Your task to perform on an android device: turn off sleep mode Image 0: 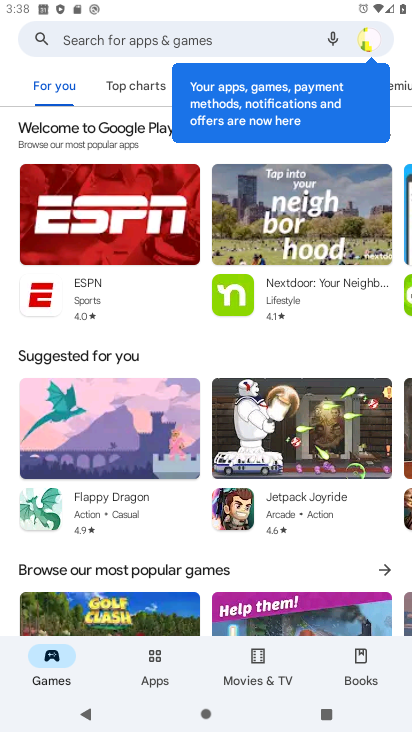
Step 0: press home button
Your task to perform on an android device: turn off sleep mode Image 1: 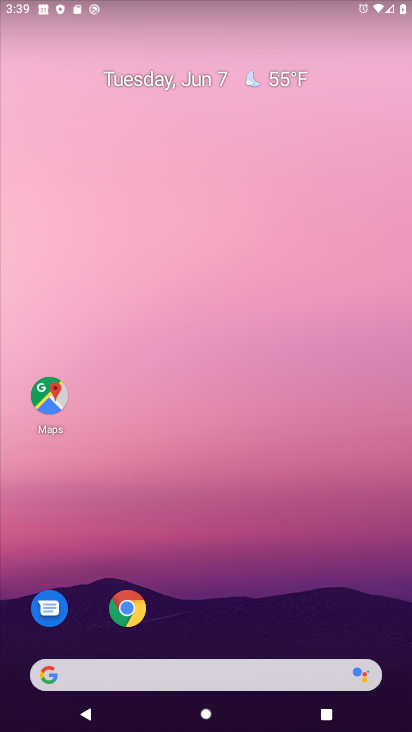
Step 1: drag from (197, 656) to (338, 318)
Your task to perform on an android device: turn off sleep mode Image 2: 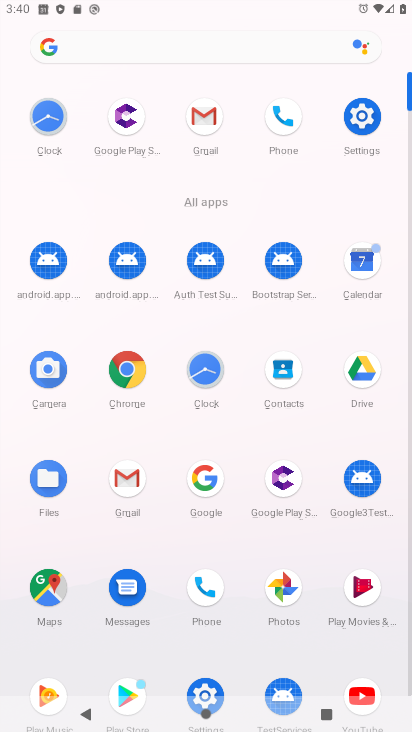
Step 2: click (364, 130)
Your task to perform on an android device: turn off sleep mode Image 3: 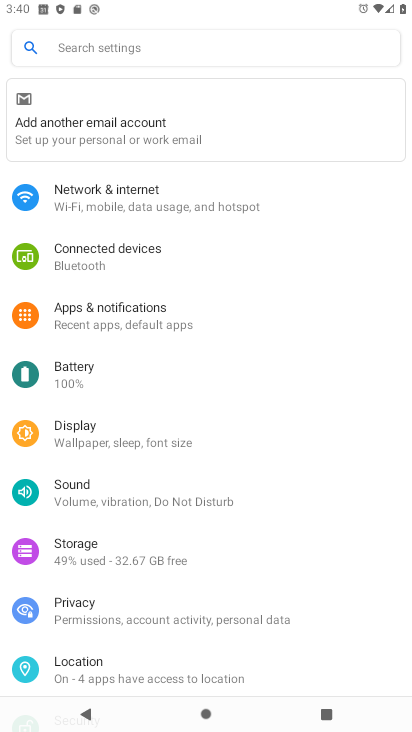
Step 3: drag from (181, 534) to (161, 121)
Your task to perform on an android device: turn off sleep mode Image 4: 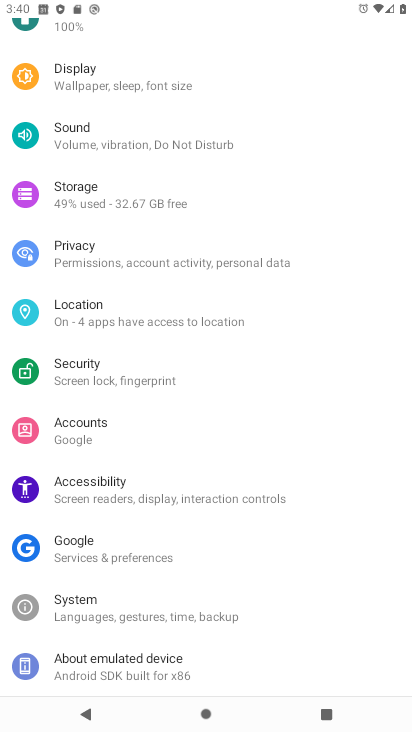
Step 4: click (62, 86)
Your task to perform on an android device: turn off sleep mode Image 5: 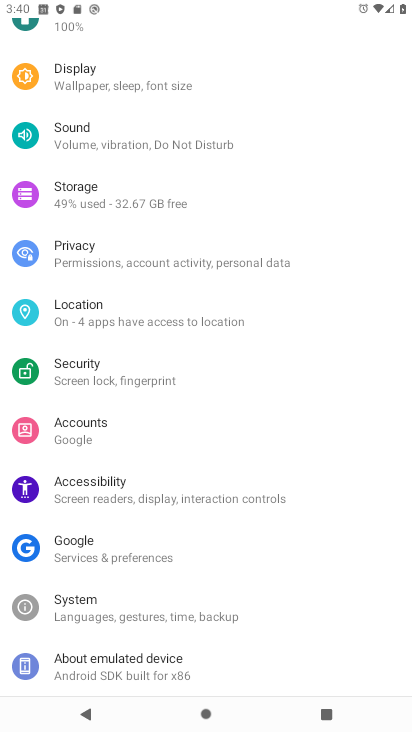
Step 5: task complete